Your task to perform on an android device: change the clock display to show seconds Image 0: 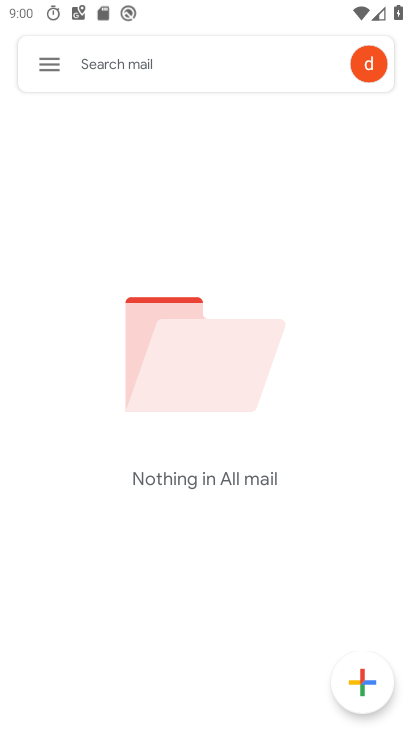
Step 0: drag from (366, 612) to (179, 11)
Your task to perform on an android device: change the clock display to show seconds Image 1: 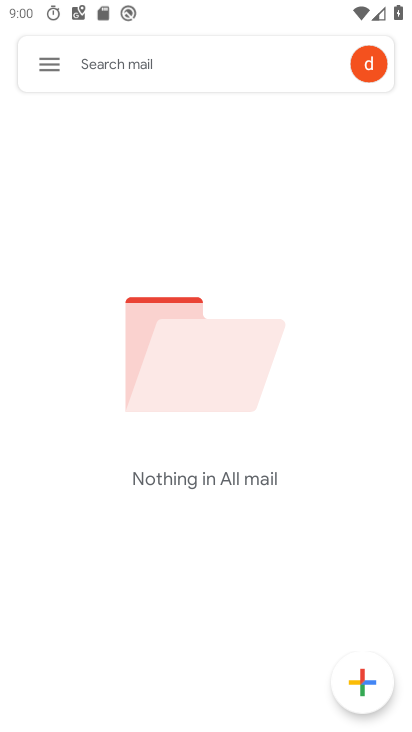
Step 1: drag from (305, 591) to (265, 210)
Your task to perform on an android device: change the clock display to show seconds Image 2: 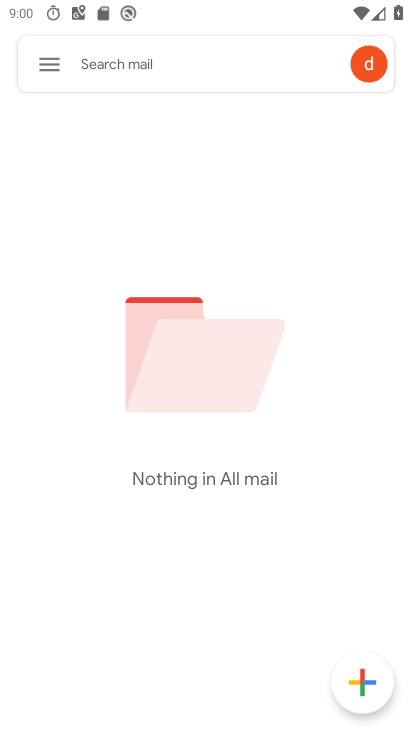
Step 2: drag from (228, 622) to (122, 124)
Your task to perform on an android device: change the clock display to show seconds Image 3: 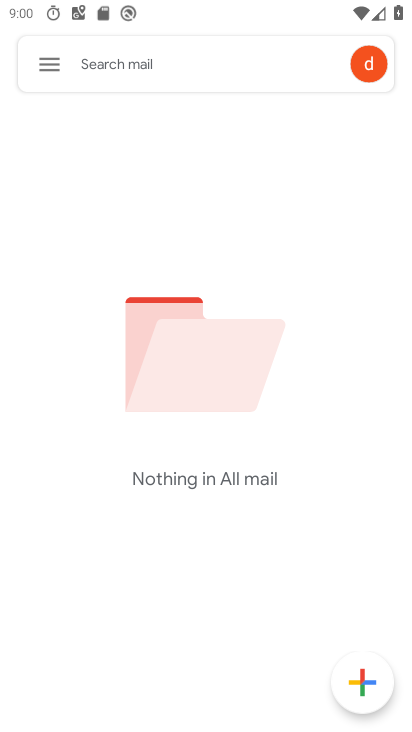
Step 3: drag from (220, 503) to (167, 93)
Your task to perform on an android device: change the clock display to show seconds Image 4: 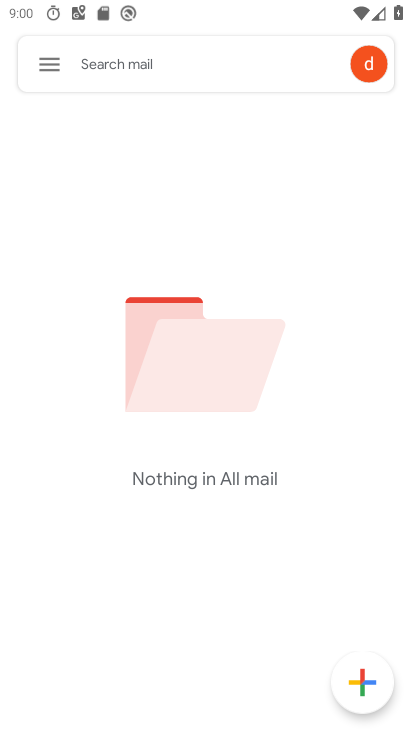
Step 4: drag from (208, 488) to (128, 103)
Your task to perform on an android device: change the clock display to show seconds Image 5: 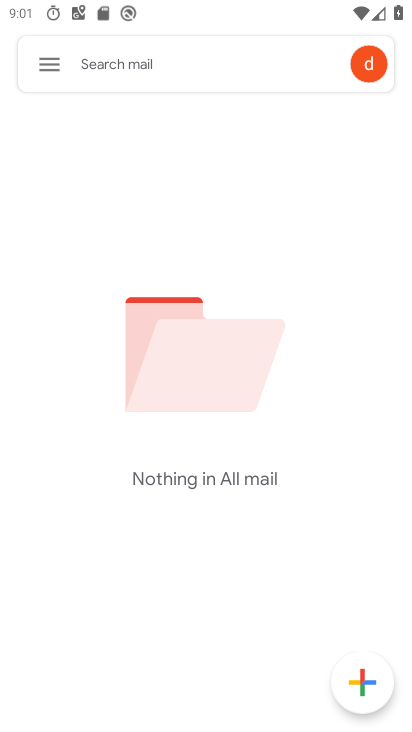
Step 5: drag from (185, 474) to (116, 111)
Your task to perform on an android device: change the clock display to show seconds Image 6: 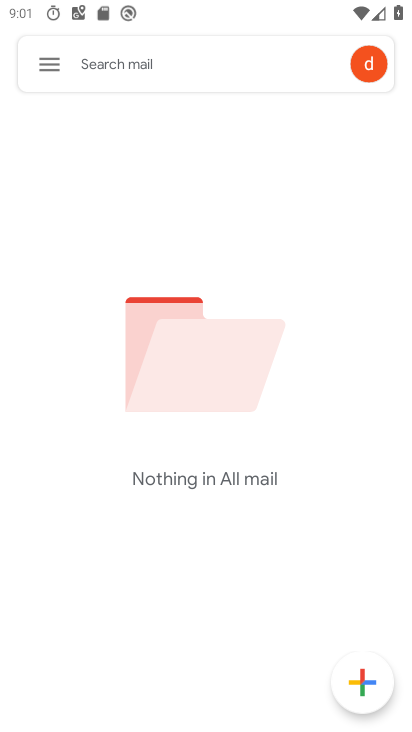
Step 6: drag from (236, 394) to (203, 80)
Your task to perform on an android device: change the clock display to show seconds Image 7: 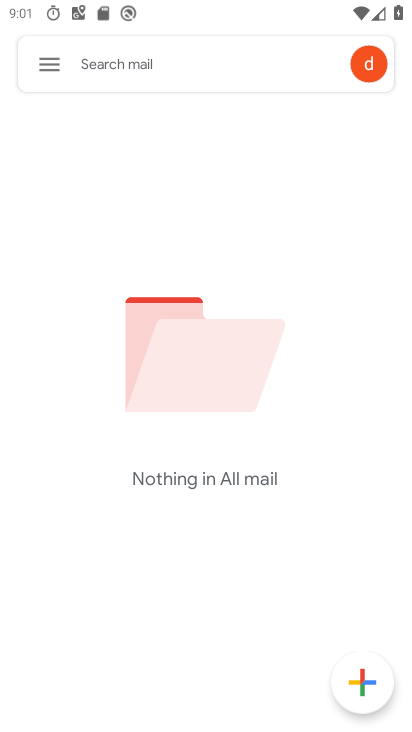
Step 7: press home button
Your task to perform on an android device: change the clock display to show seconds Image 8: 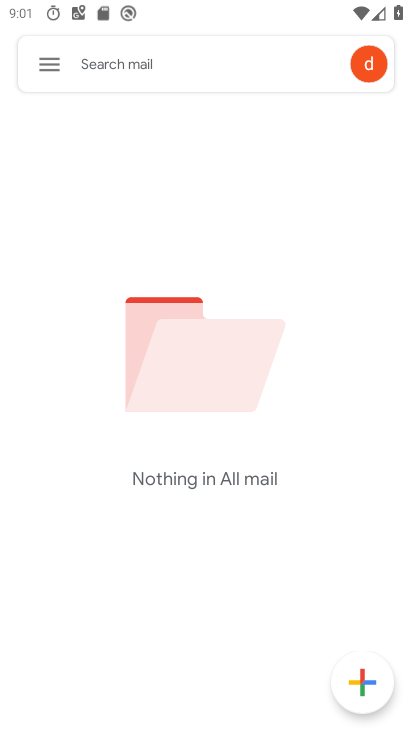
Step 8: press home button
Your task to perform on an android device: change the clock display to show seconds Image 9: 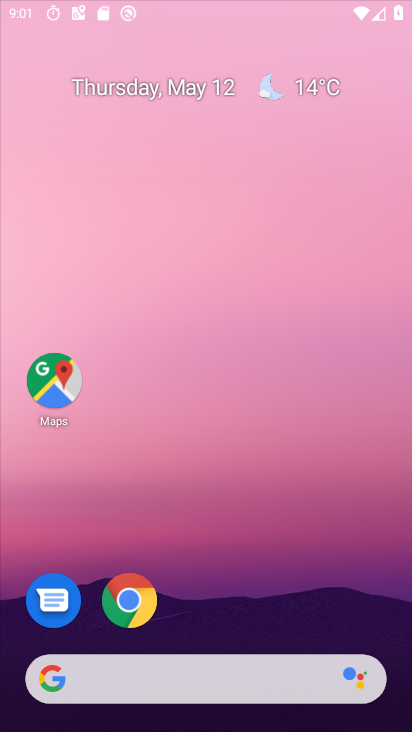
Step 9: press home button
Your task to perform on an android device: change the clock display to show seconds Image 10: 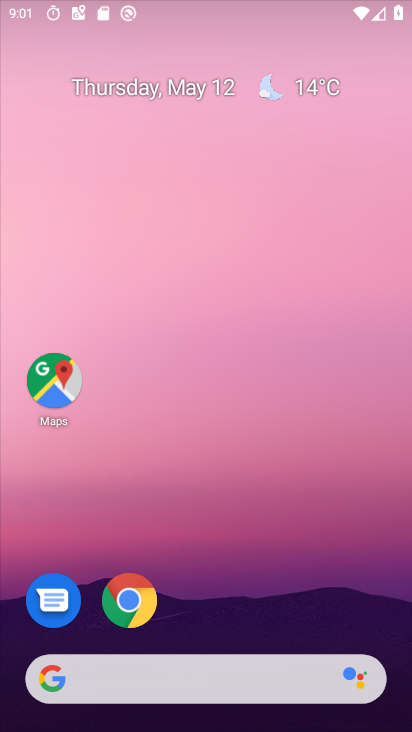
Step 10: press home button
Your task to perform on an android device: change the clock display to show seconds Image 11: 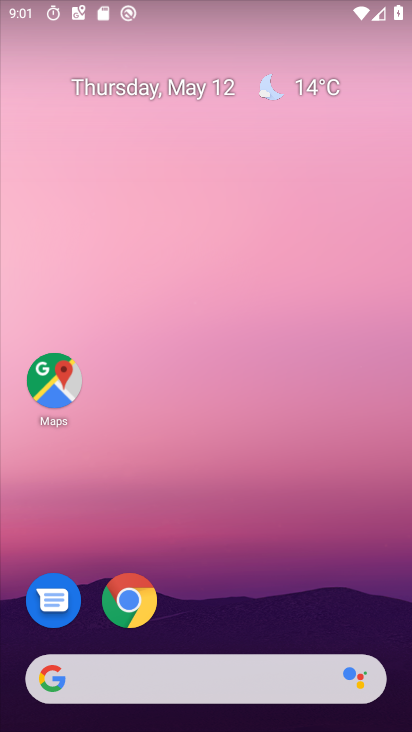
Step 11: drag from (231, 532) to (126, 5)
Your task to perform on an android device: change the clock display to show seconds Image 12: 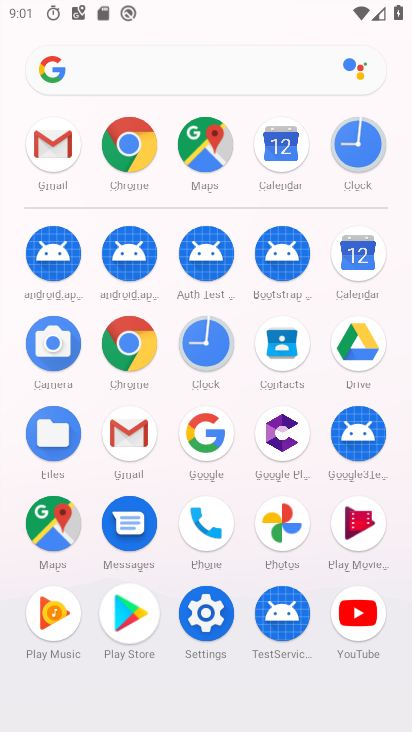
Step 12: click (349, 151)
Your task to perform on an android device: change the clock display to show seconds Image 13: 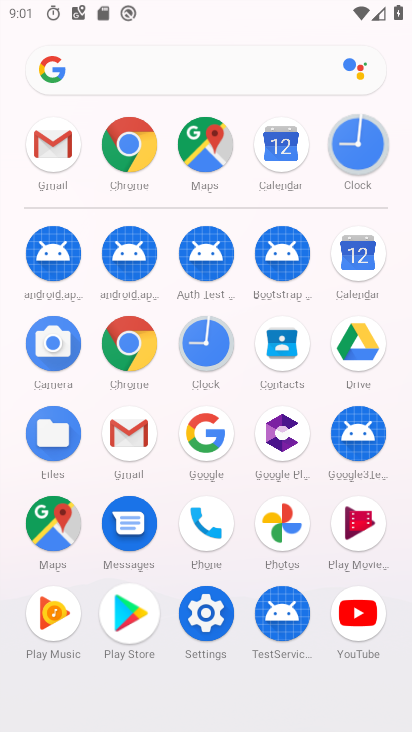
Step 13: click (349, 151)
Your task to perform on an android device: change the clock display to show seconds Image 14: 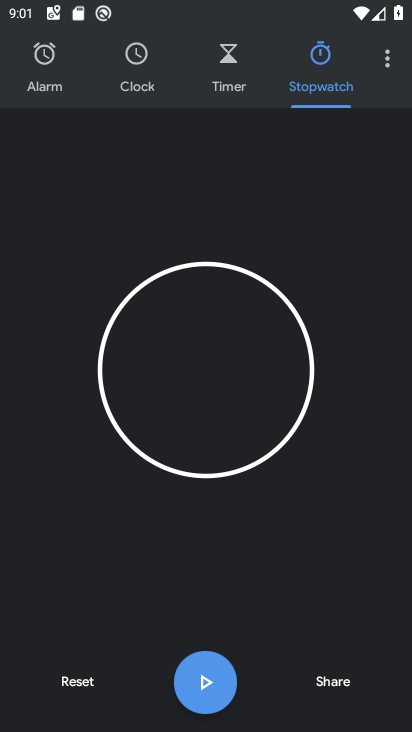
Step 14: click (349, 151)
Your task to perform on an android device: change the clock display to show seconds Image 15: 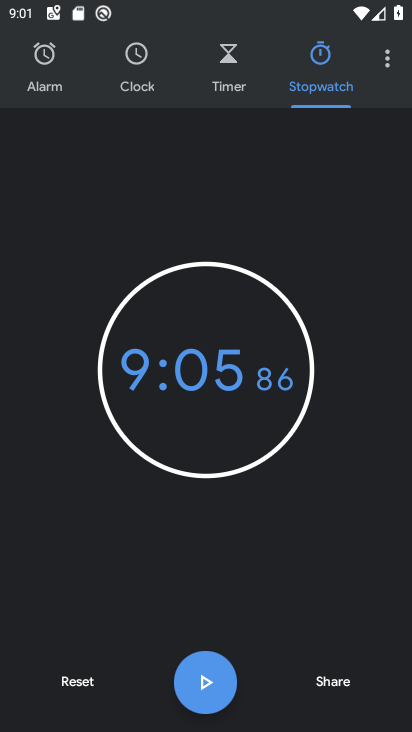
Step 15: click (387, 69)
Your task to perform on an android device: change the clock display to show seconds Image 16: 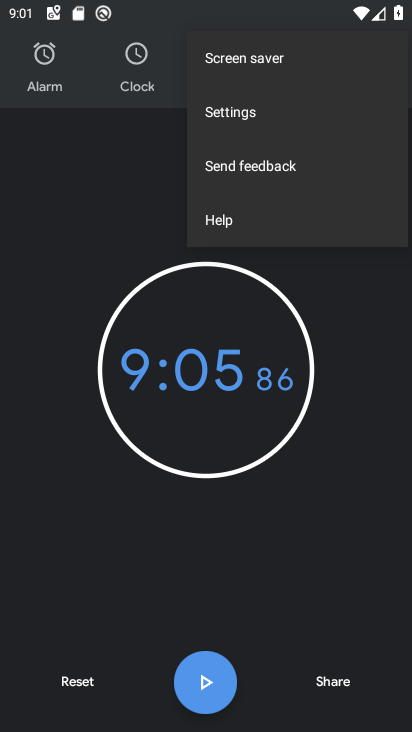
Step 16: click (243, 108)
Your task to perform on an android device: change the clock display to show seconds Image 17: 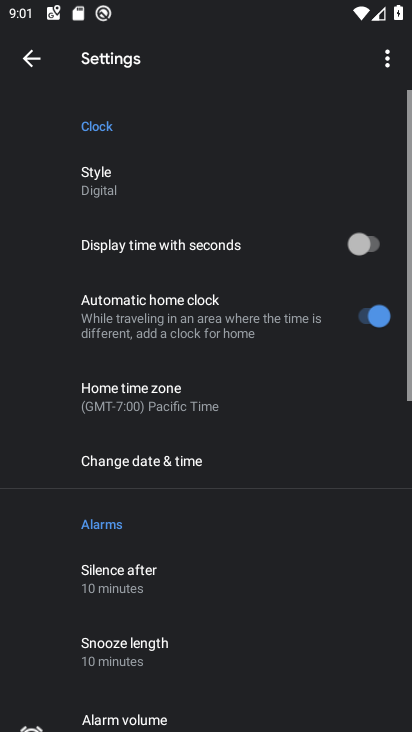
Step 17: click (357, 244)
Your task to perform on an android device: change the clock display to show seconds Image 18: 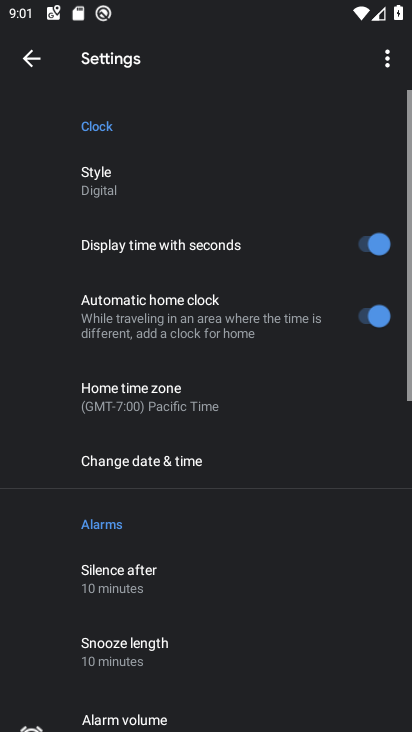
Step 18: task complete